Your task to perform on an android device: Go to privacy settings Image 0: 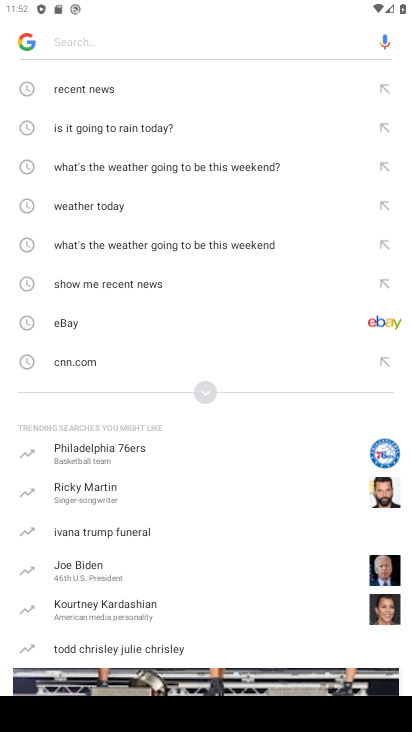
Step 0: press home button
Your task to perform on an android device: Go to privacy settings Image 1: 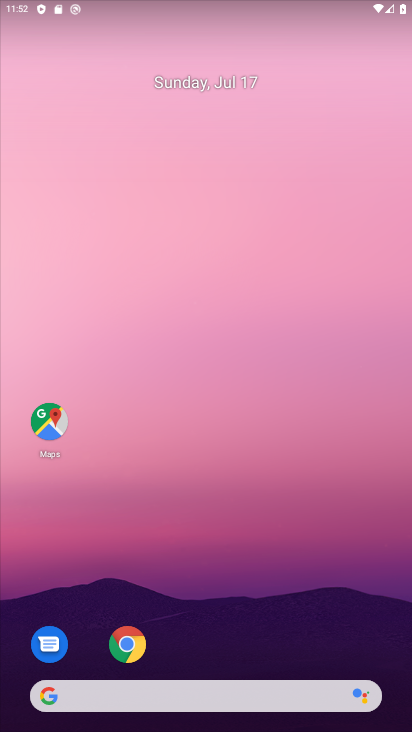
Step 1: drag from (271, 452) to (249, 57)
Your task to perform on an android device: Go to privacy settings Image 2: 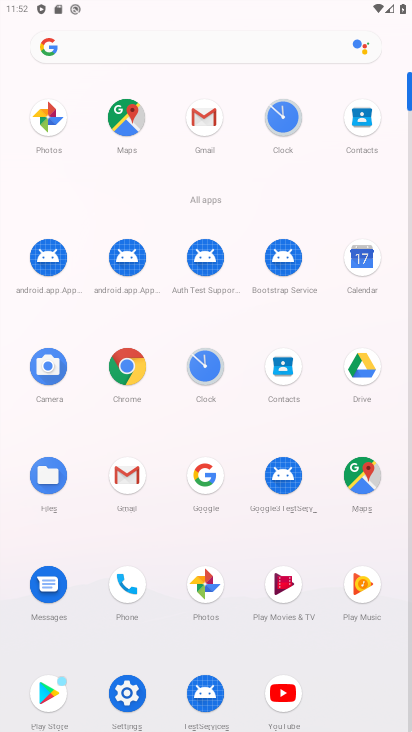
Step 2: click (134, 679)
Your task to perform on an android device: Go to privacy settings Image 3: 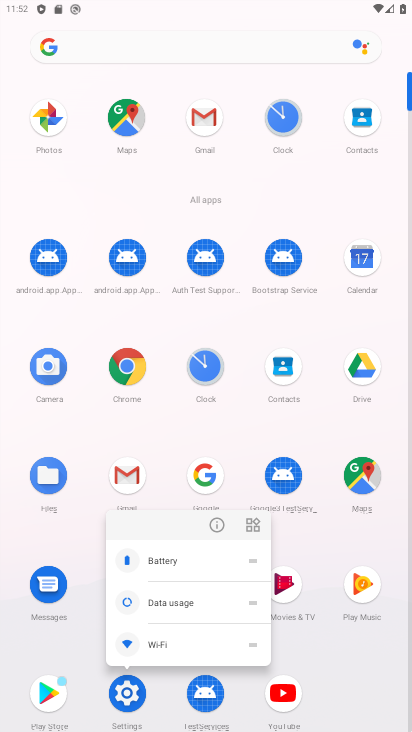
Step 3: click (133, 698)
Your task to perform on an android device: Go to privacy settings Image 4: 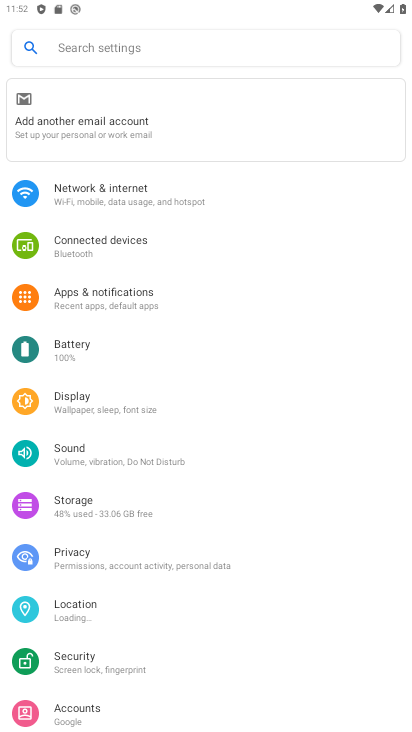
Step 4: drag from (144, 656) to (166, 341)
Your task to perform on an android device: Go to privacy settings Image 5: 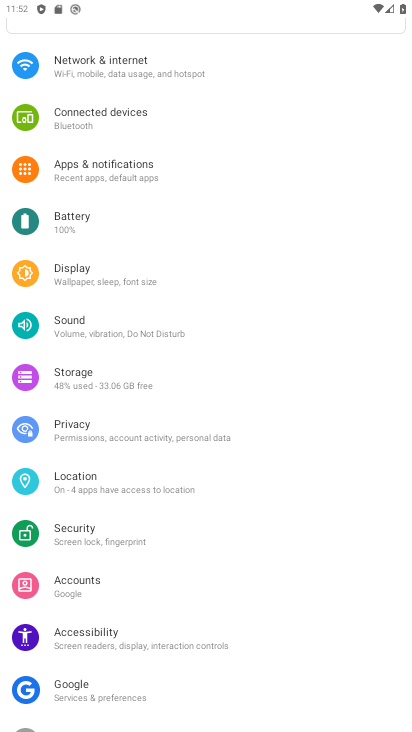
Step 5: click (117, 424)
Your task to perform on an android device: Go to privacy settings Image 6: 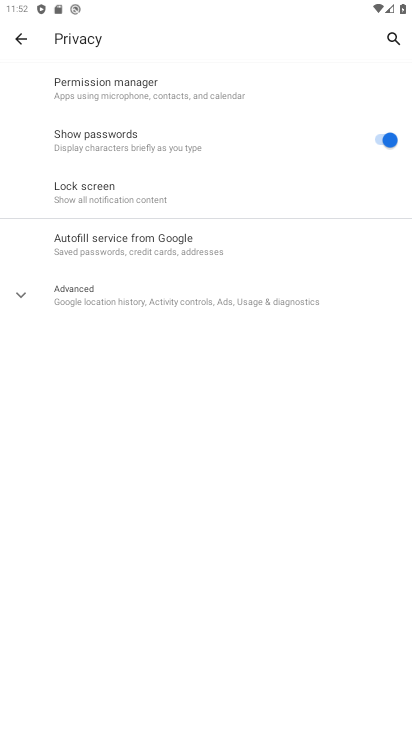
Step 6: task complete